Your task to perform on an android device: Go to Google Image 0: 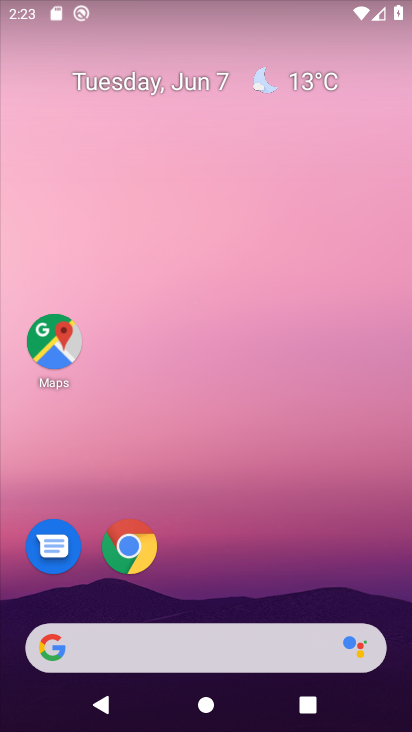
Step 0: drag from (309, 542) to (332, 8)
Your task to perform on an android device: Go to Google Image 1: 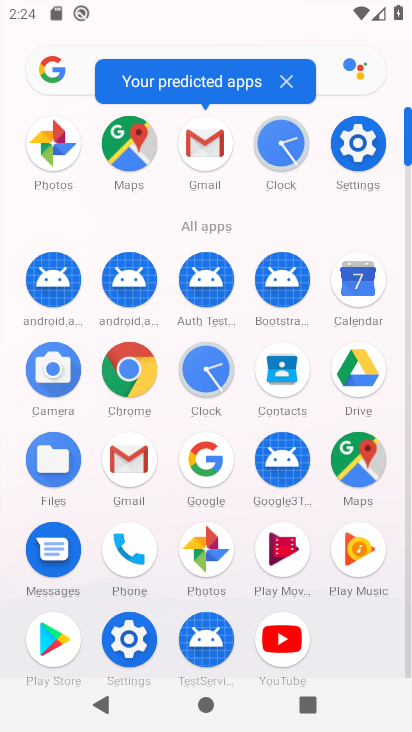
Step 1: click (213, 474)
Your task to perform on an android device: Go to Google Image 2: 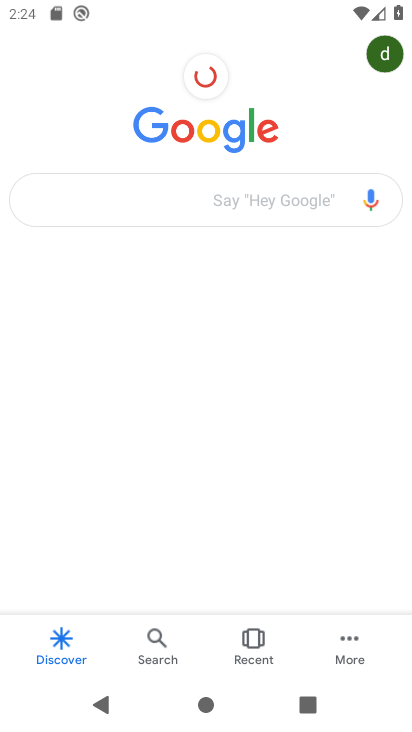
Step 2: task complete